Your task to perform on an android device: check google app version Image 0: 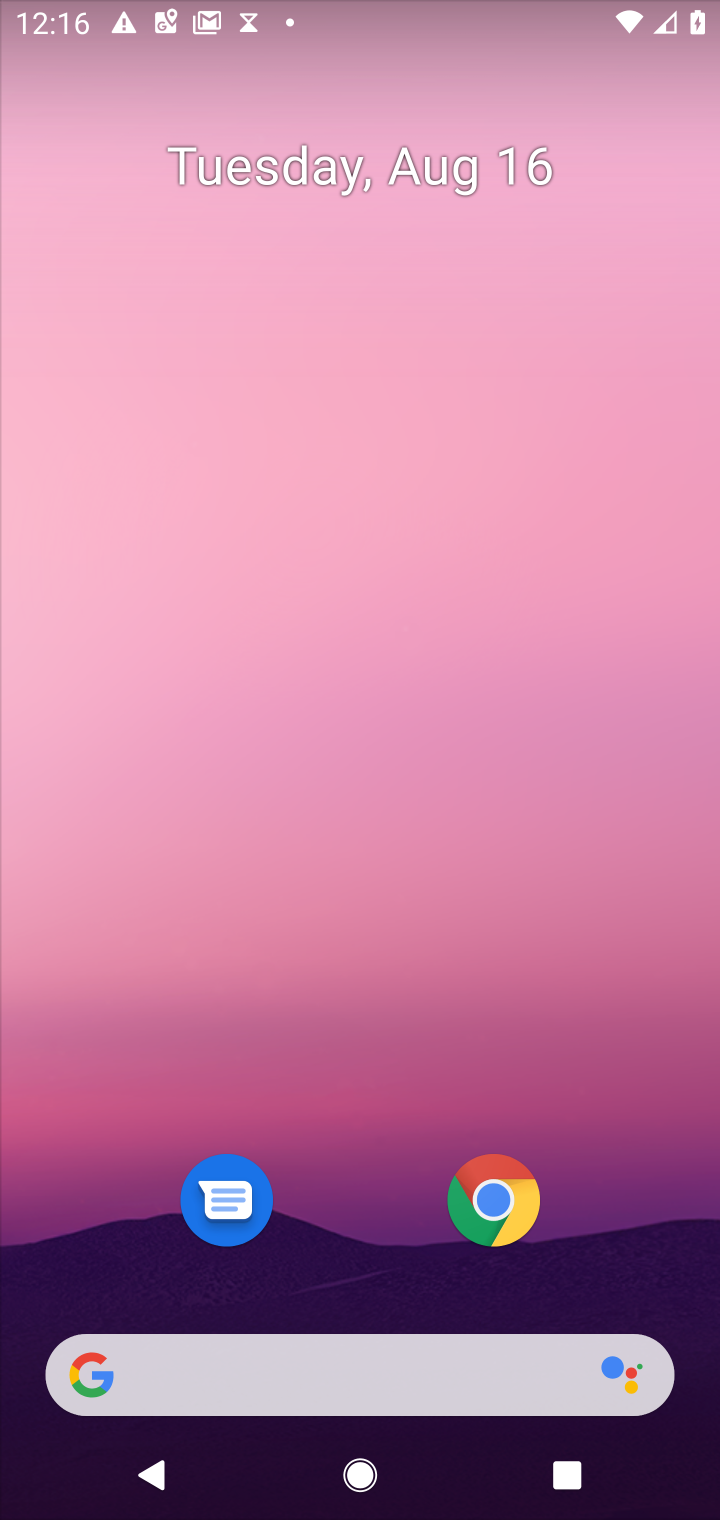
Step 0: drag from (399, 853) to (399, 382)
Your task to perform on an android device: check google app version Image 1: 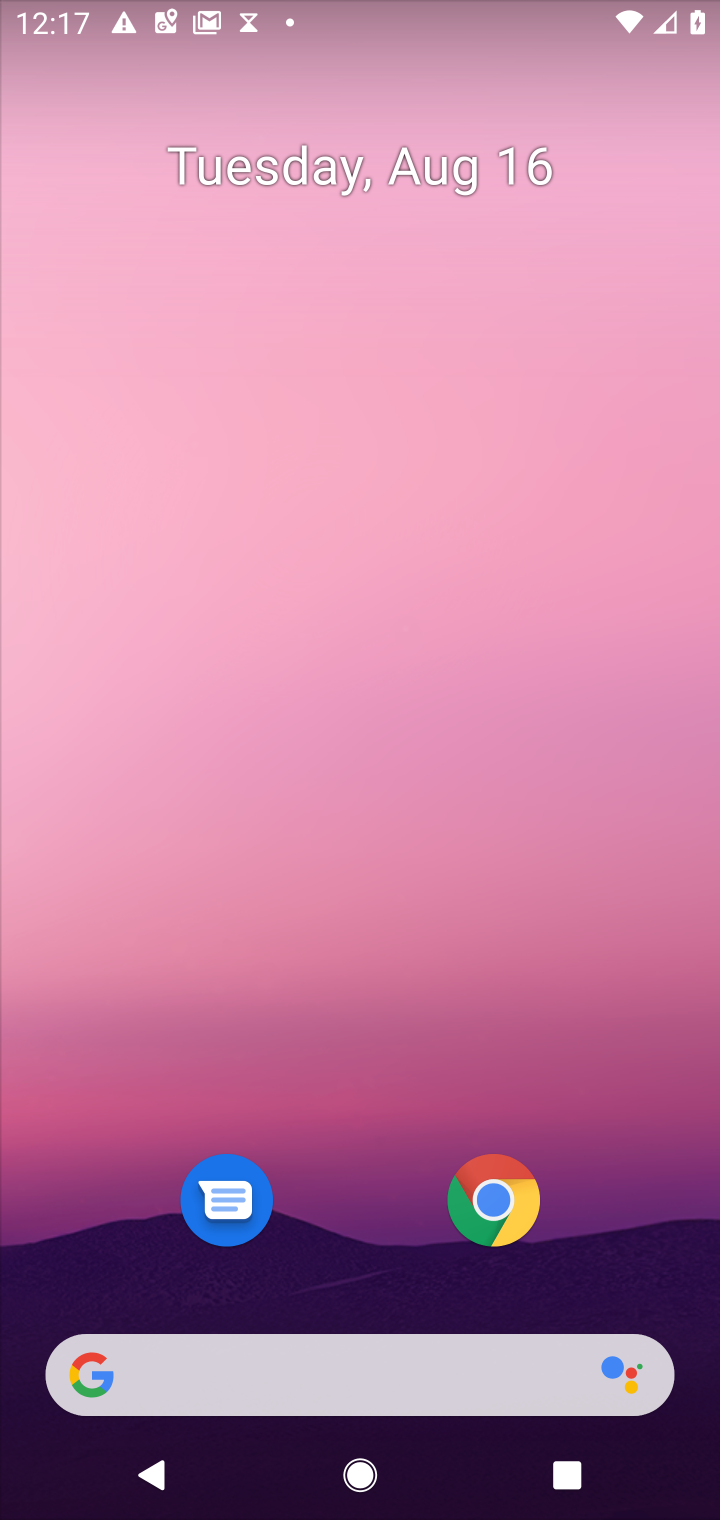
Step 1: drag from (366, 1253) to (414, 285)
Your task to perform on an android device: check google app version Image 2: 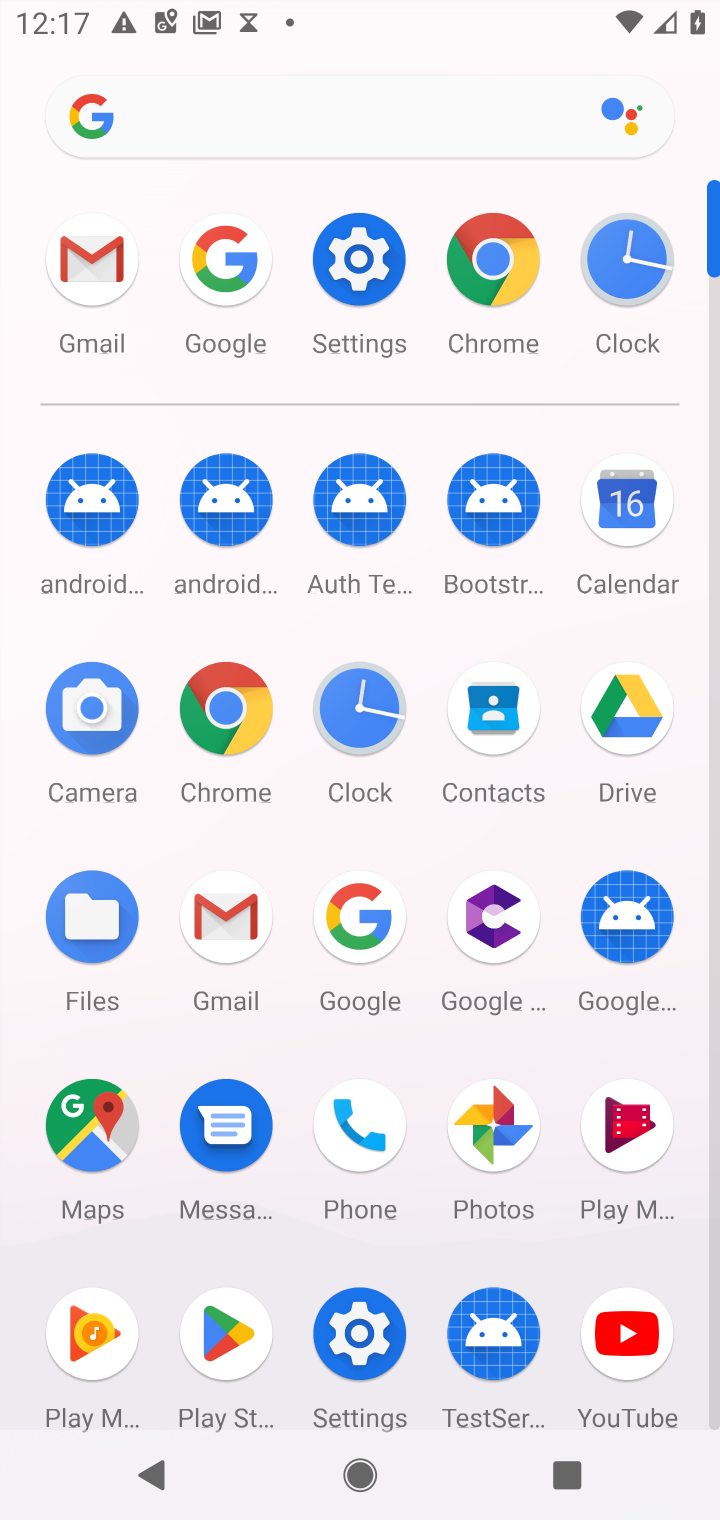
Step 2: click (334, 930)
Your task to perform on an android device: check google app version Image 3: 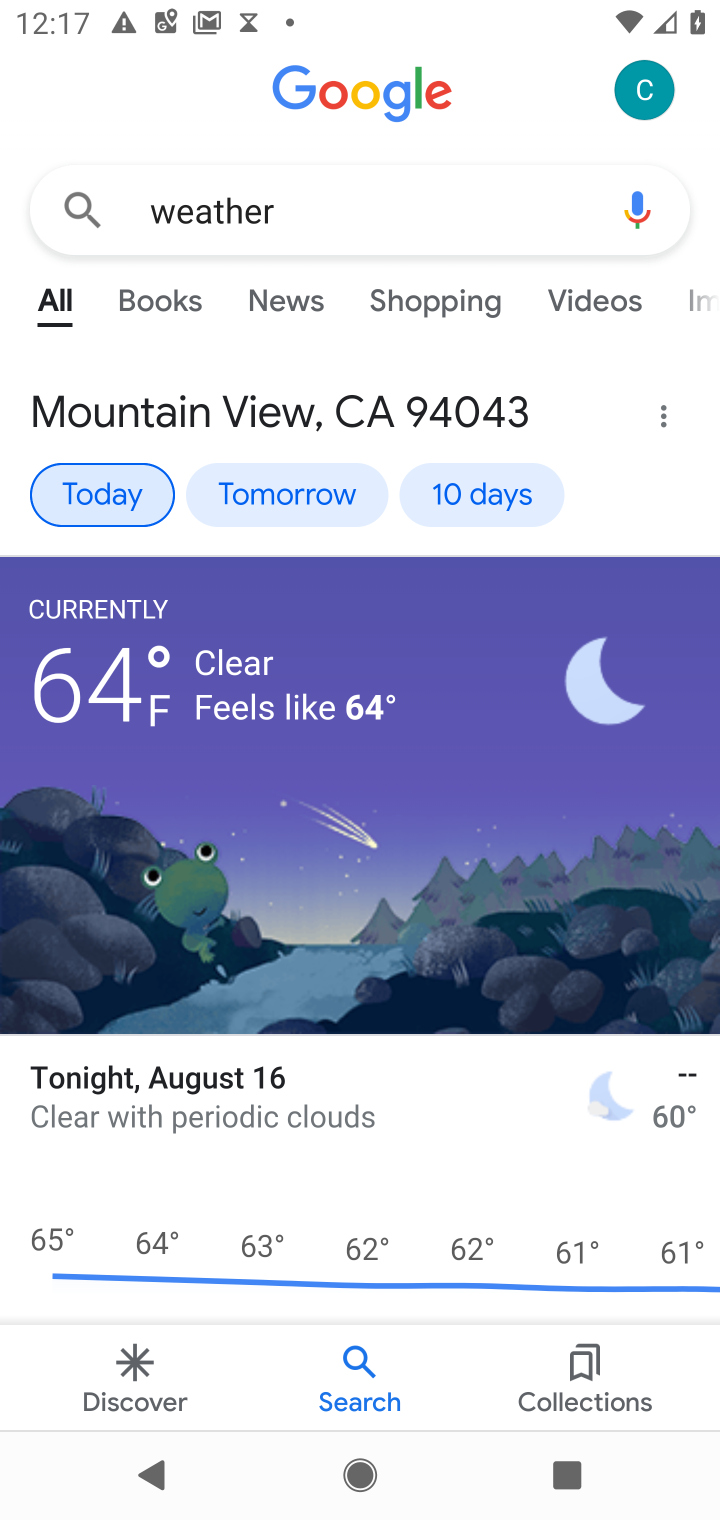
Step 3: click (645, 97)
Your task to perform on an android device: check google app version Image 4: 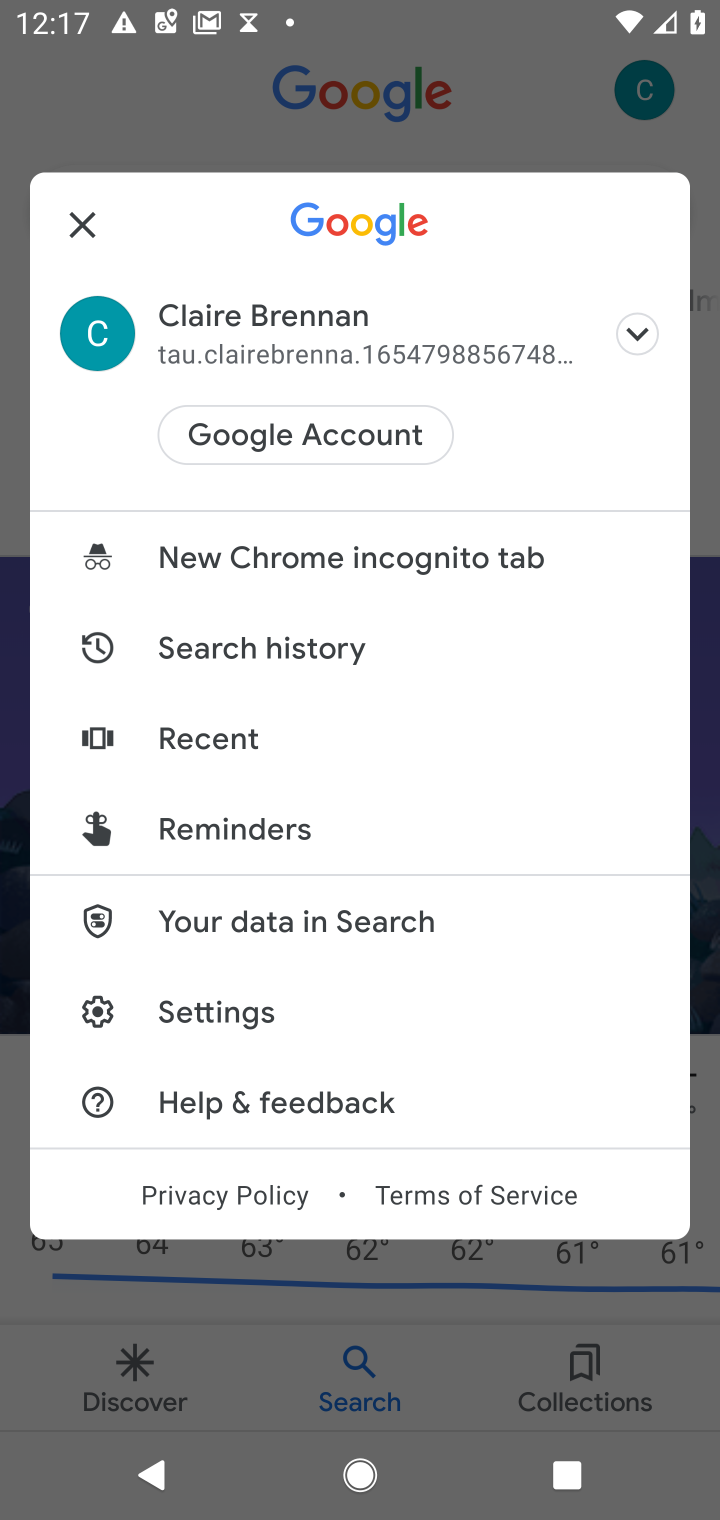
Step 4: click (139, 1004)
Your task to perform on an android device: check google app version Image 5: 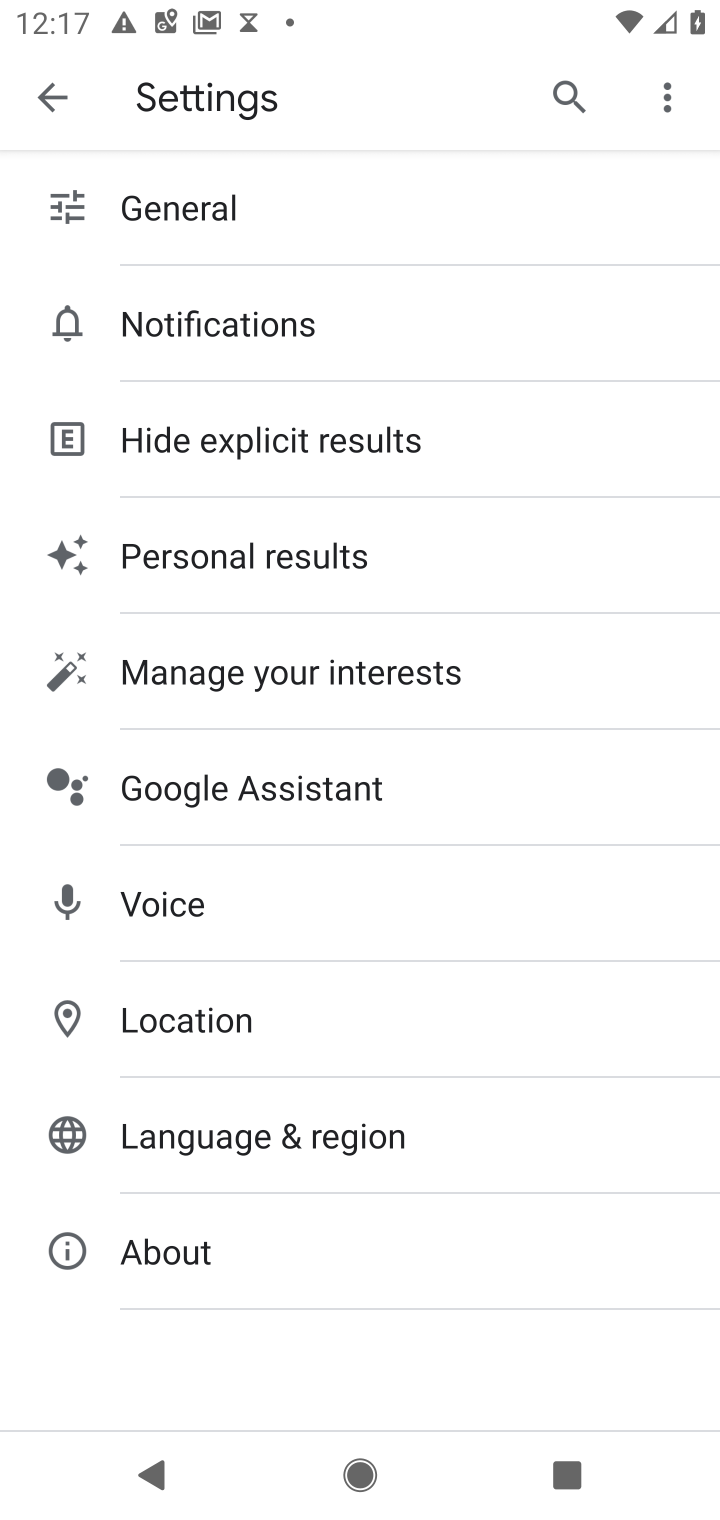
Step 5: click (228, 1252)
Your task to perform on an android device: check google app version Image 6: 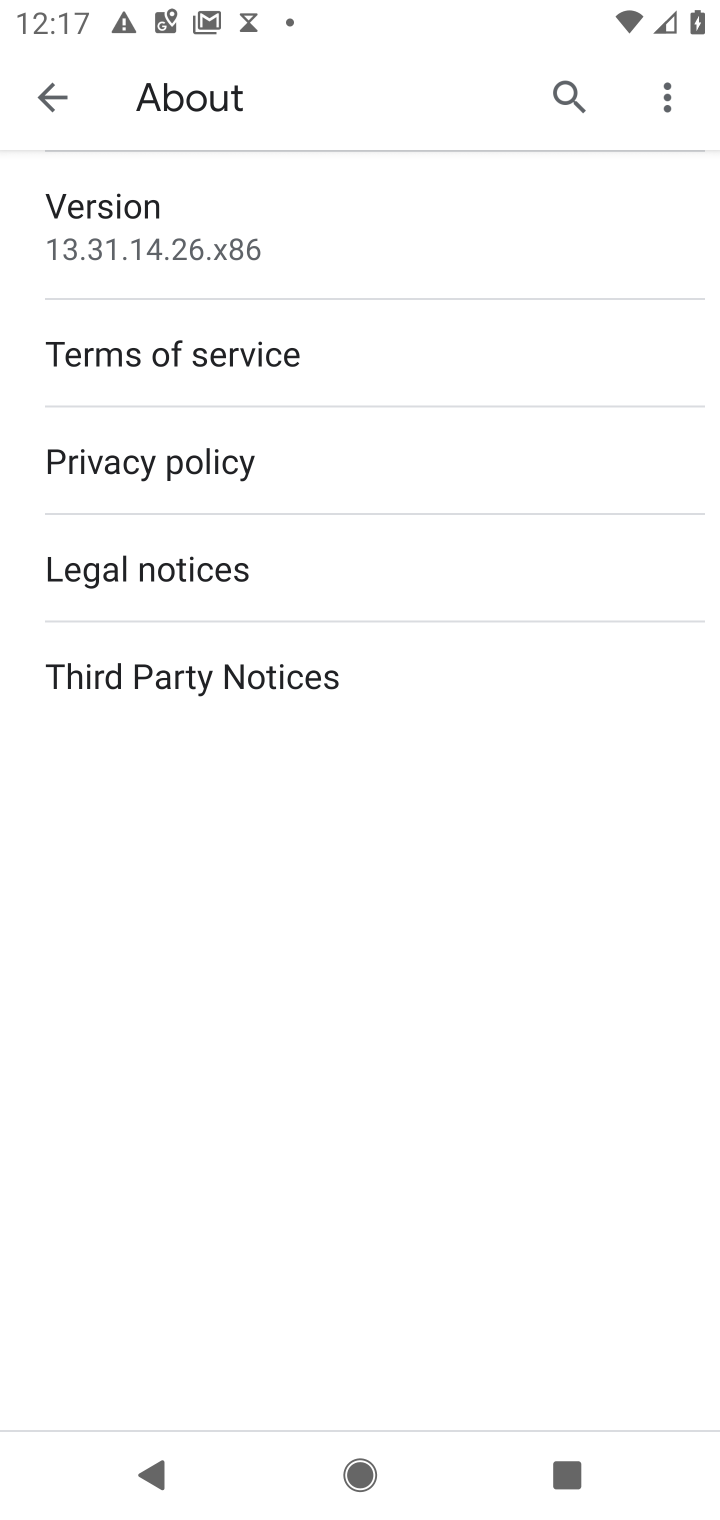
Step 6: click (322, 242)
Your task to perform on an android device: check google app version Image 7: 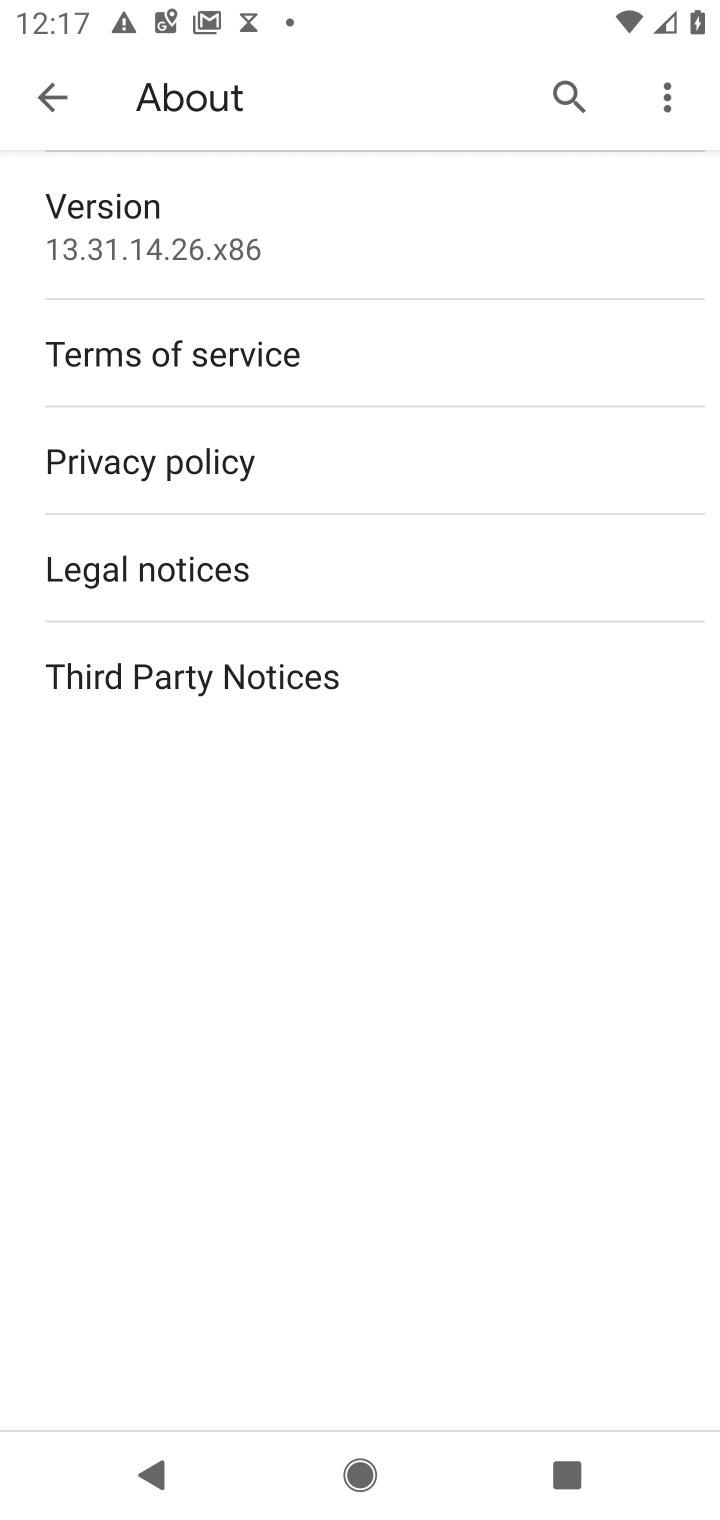
Step 7: task complete